Your task to perform on an android device: clear all cookies in the chrome app Image 0: 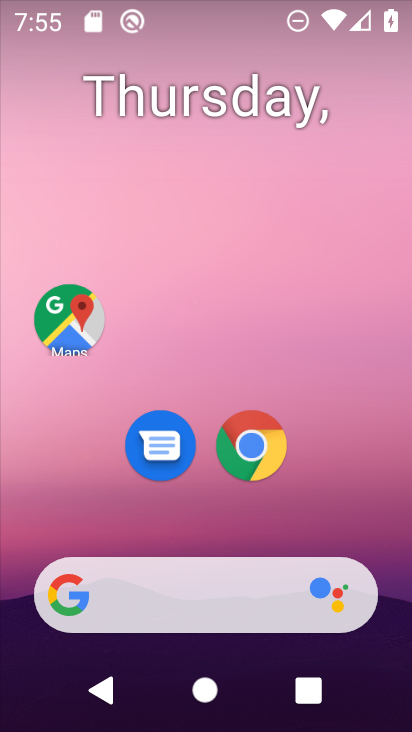
Step 0: click (261, 456)
Your task to perform on an android device: clear all cookies in the chrome app Image 1: 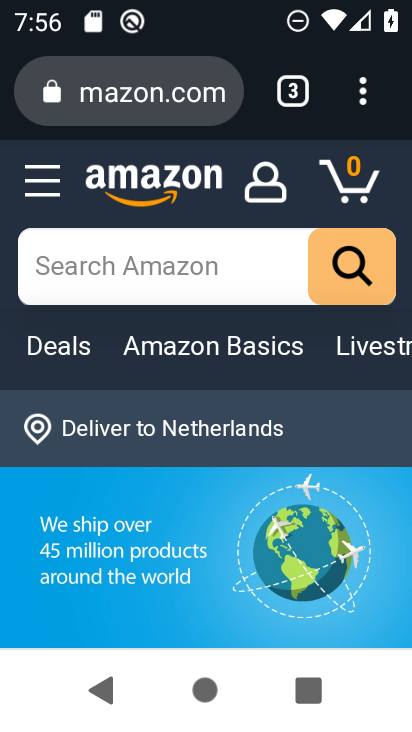
Step 1: click (366, 95)
Your task to perform on an android device: clear all cookies in the chrome app Image 2: 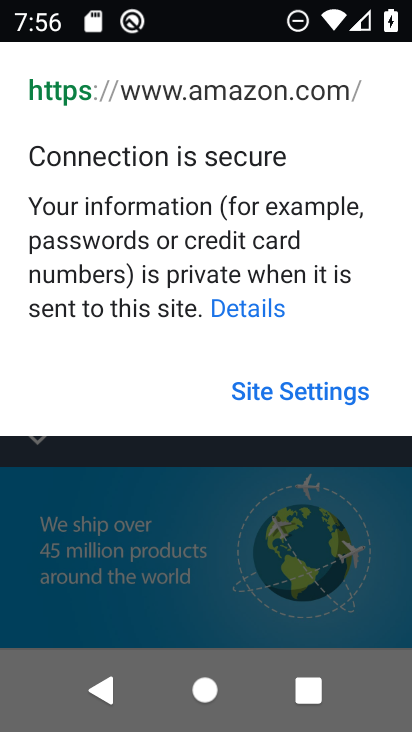
Step 2: click (391, 476)
Your task to perform on an android device: clear all cookies in the chrome app Image 3: 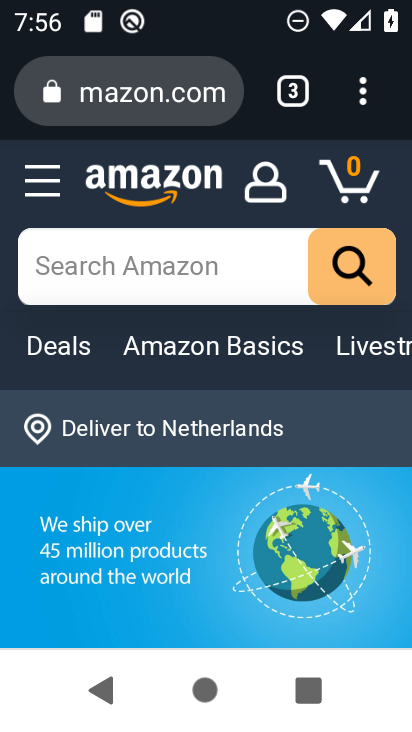
Step 3: click (367, 89)
Your task to perform on an android device: clear all cookies in the chrome app Image 4: 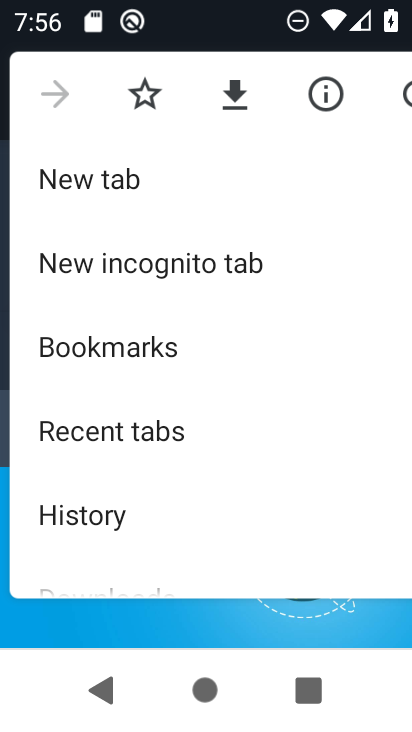
Step 4: drag from (286, 436) to (238, 136)
Your task to perform on an android device: clear all cookies in the chrome app Image 5: 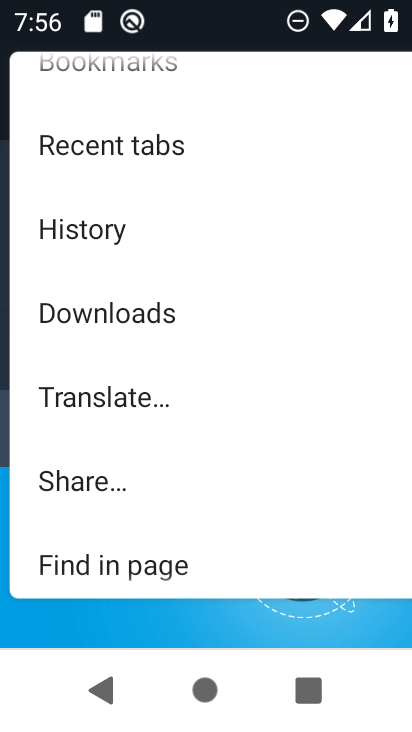
Step 5: drag from (226, 489) to (203, 218)
Your task to perform on an android device: clear all cookies in the chrome app Image 6: 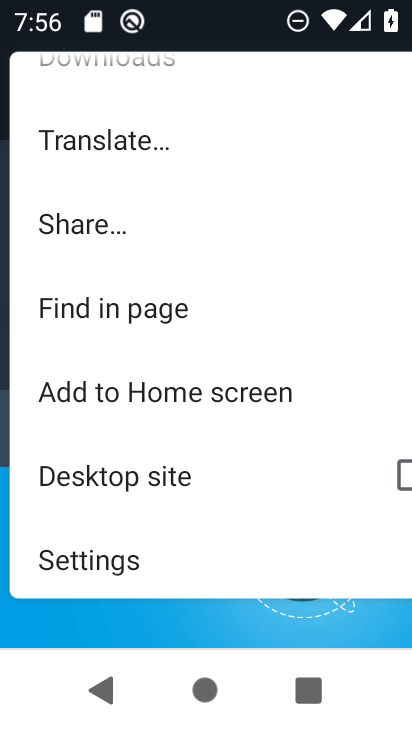
Step 6: click (111, 561)
Your task to perform on an android device: clear all cookies in the chrome app Image 7: 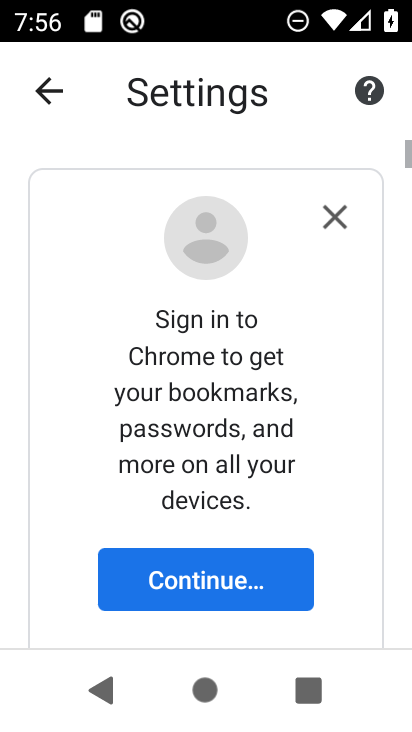
Step 7: drag from (329, 621) to (322, 133)
Your task to perform on an android device: clear all cookies in the chrome app Image 8: 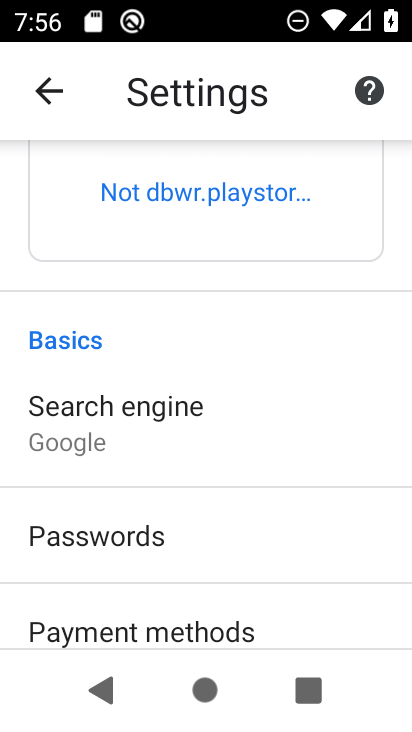
Step 8: drag from (278, 528) to (258, 137)
Your task to perform on an android device: clear all cookies in the chrome app Image 9: 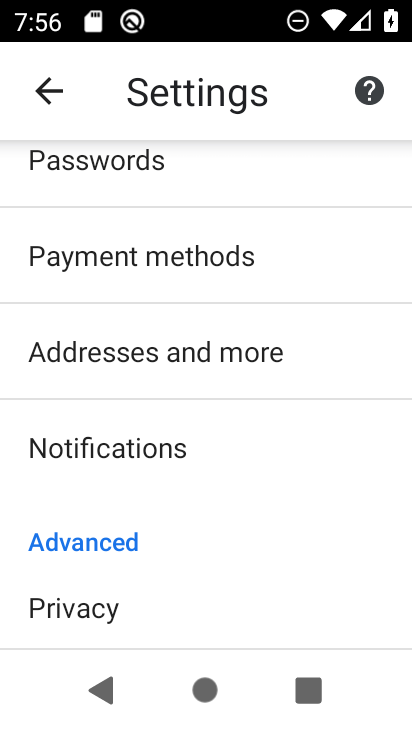
Step 9: drag from (234, 516) to (215, 192)
Your task to perform on an android device: clear all cookies in the chrome app Image 10: 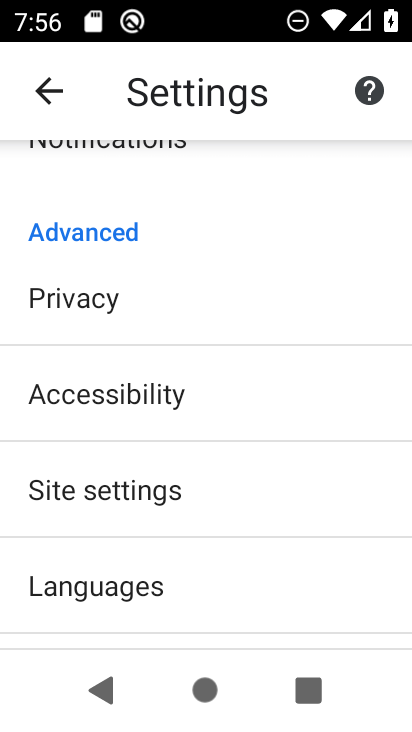
Step 10: click (53, 299)
Your task to perform on an android device: clear all cookies in the chrome app Image 11: 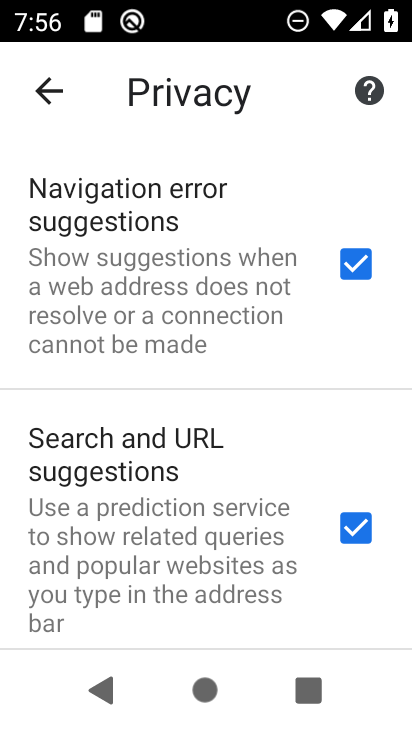
Step 11: drag from (209, 525) to (199, 180)
Your task to perform on an android device: clear all cookies in the chrome app Image 12: 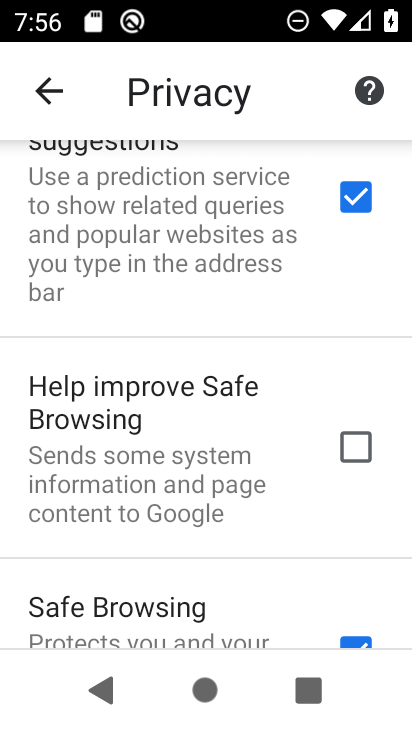
Step 12: drag from (180, 474) to (147, 178)
Your task to perform on an android device: clear all cookies in the chrome app Image 13: 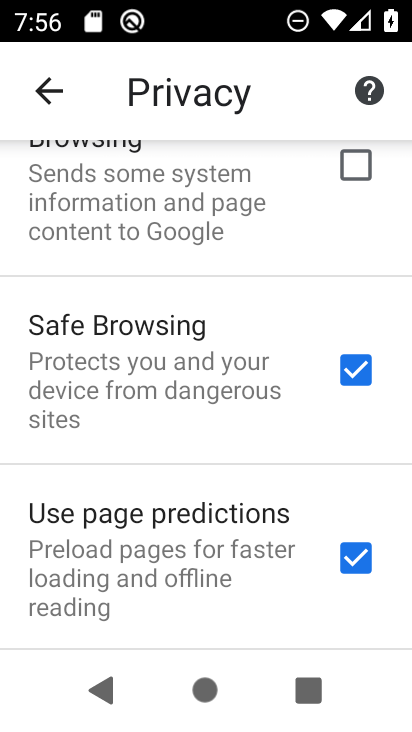
Step 13: drag from (144, 539) to (118, 199)
Your task to perform on an android device: clear all cookies in the chrome app Image 14: 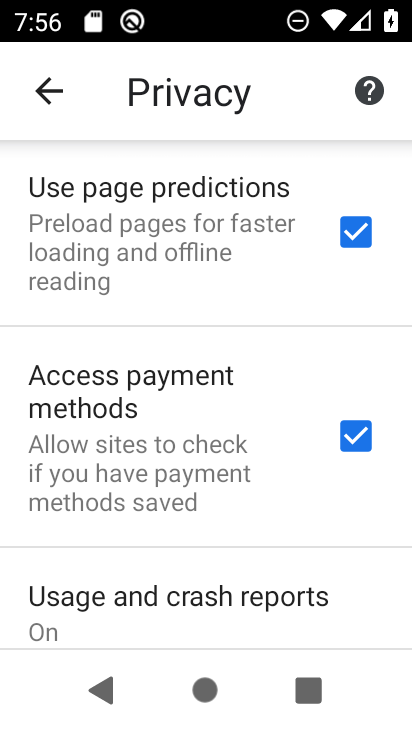
Step 14: drag from (142, 535) to (108, 229)
Your task to perform on an android device: clear all cookies in the chrome app Image 15: 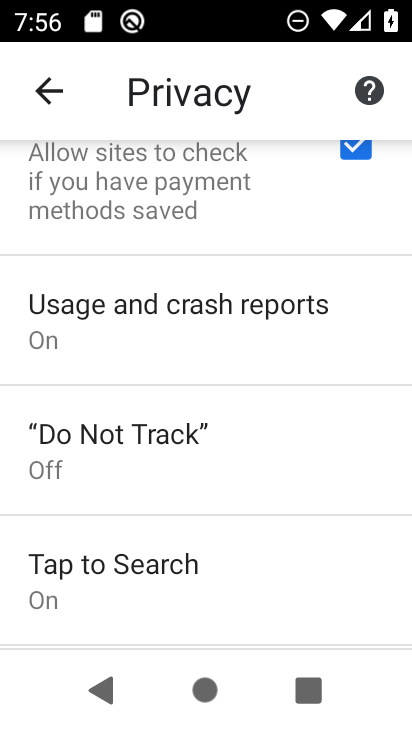
Step 15: drag from (136, 523) to (119, 192)
Your task to perform on an android device: clear all cookies in the chrome app Image 16: 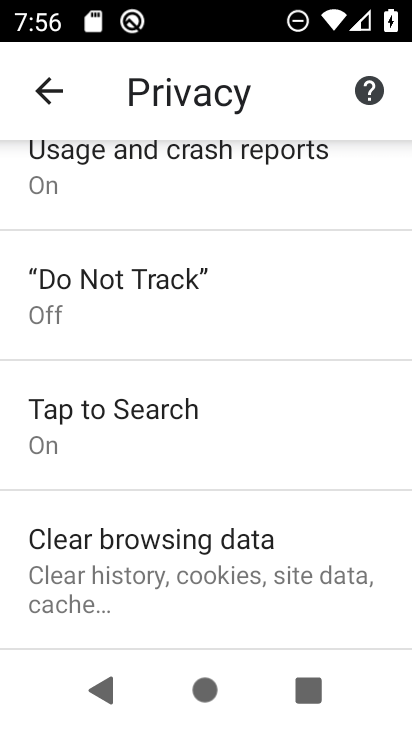
Step 16: click (154, 562)
Your task to perform on an android device: clear all cookies in the chrome app Image 17: 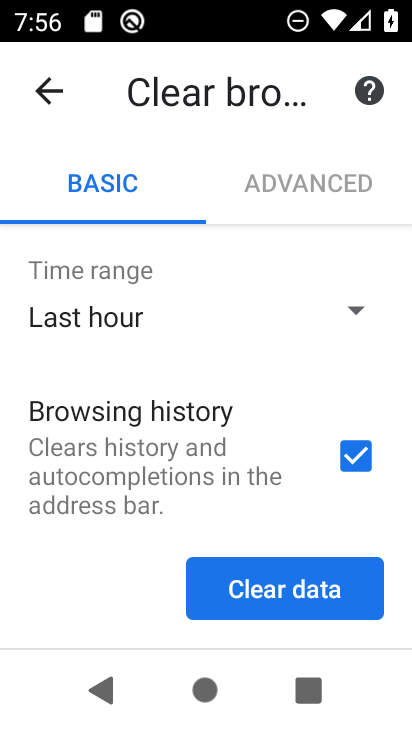
Step 17: click (350, 457)
Your task to perform on an android device: clear all cookies in the chrome app Image 18: 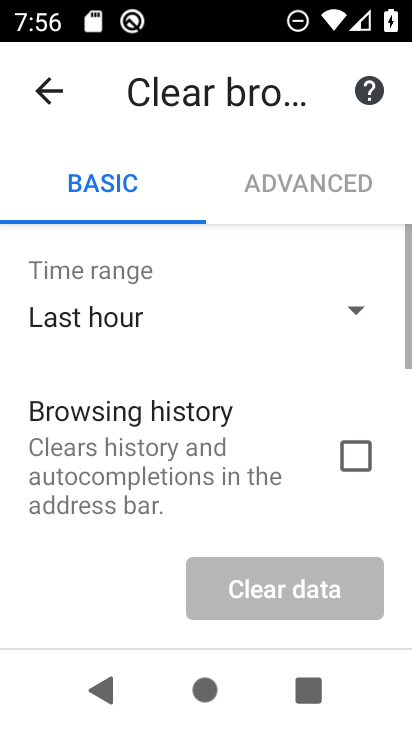
Step 18: drag from (110, 502) to (108, 256)
Your task to perform on an android device: clear all cookies in the chrome app Image 19: 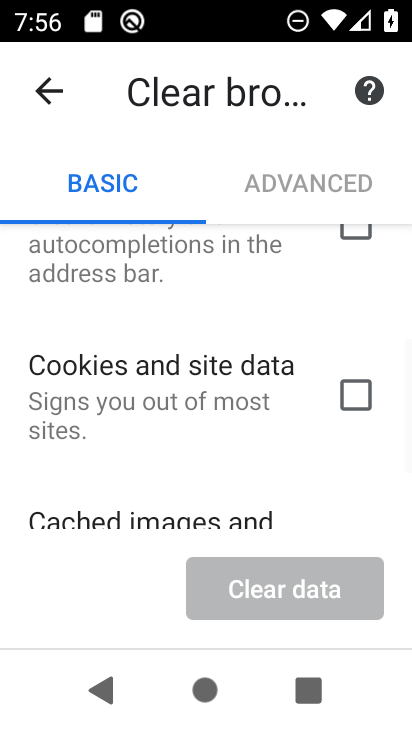
Step 19: drag from (111, 470) to (99, 246)
Your task to perform on an android device: clear all cookies in the chrome app Image 20: 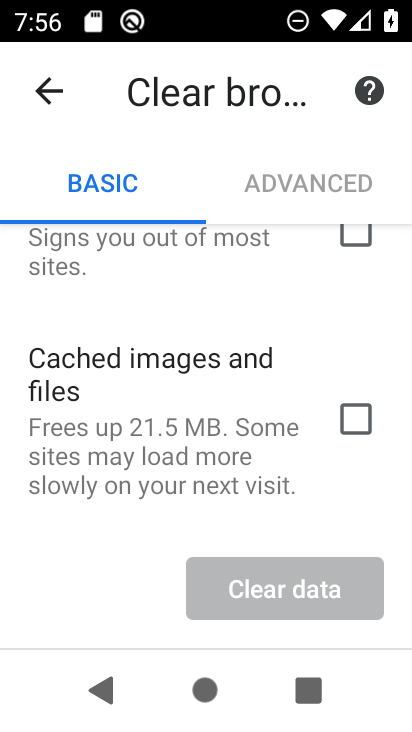
Step 20: click (343, 235)
Your task to perform on an android device: clear all cookies in the chrome app Image 21: 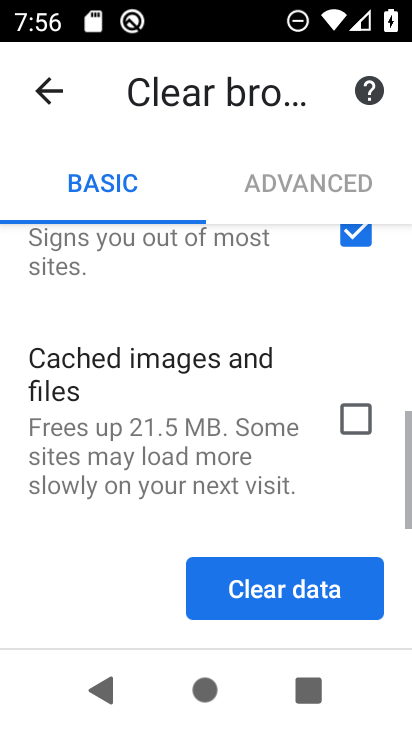
Step 21: click (284, 578)
Your task to perform on an android device: clear all cookies in the chrome app Image 22: 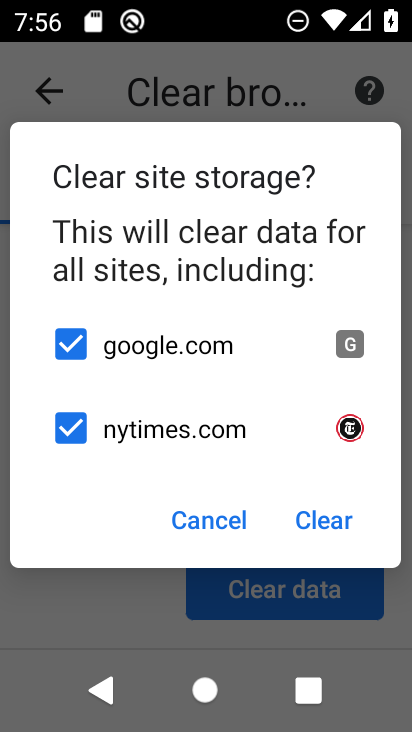
Step 22: click (307, 517)
Your task to perform on an android device: clear all cookies in the chrome app Image 23: 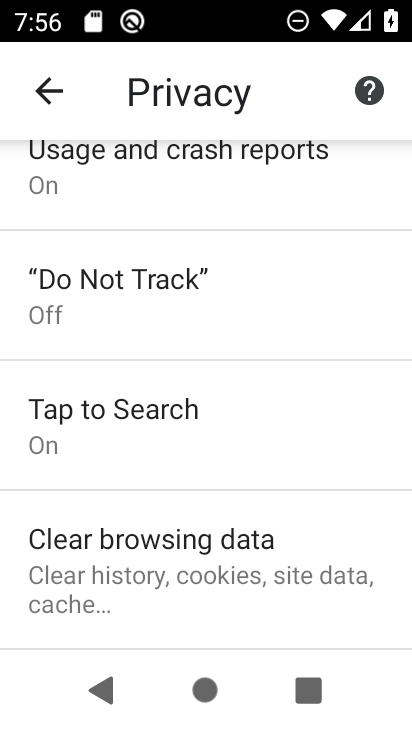
Step 23: task complete